Your task to perform on an android device: turn on the 24-hour format for clock Image 0: 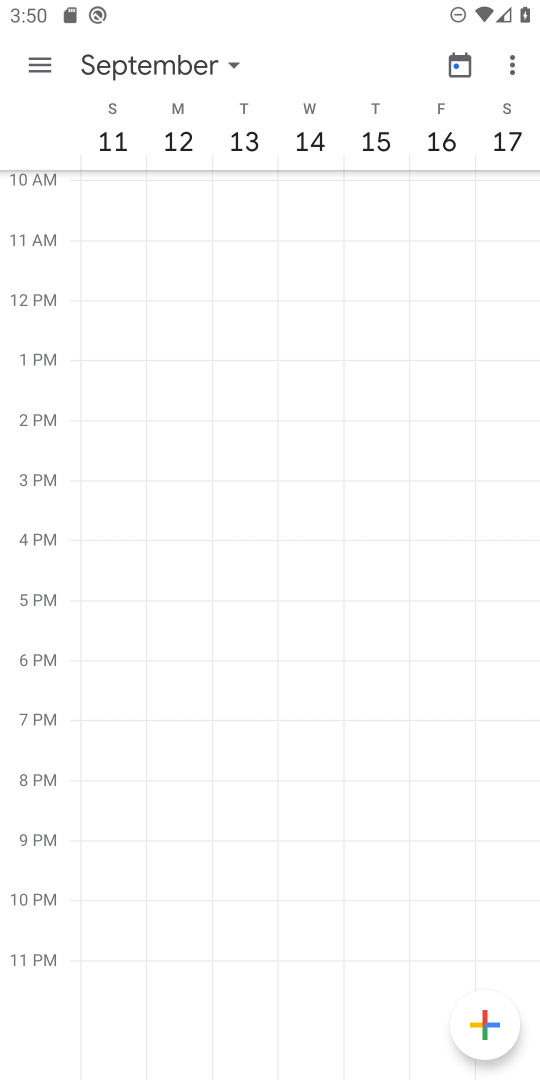
Step 0: press home button
Your task to perform on an android device: turn on the 24-hour format for clock Image 1: 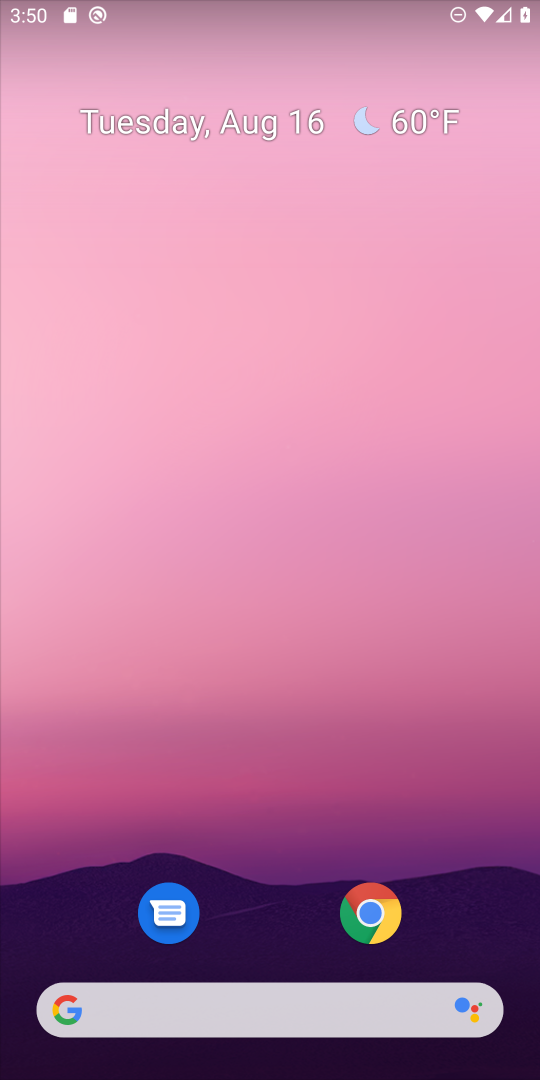
Step 1: drag from (475, 931) to (474, 180)
Your task to perform on an android device: turn on the 24-hour format for clock Image 2: 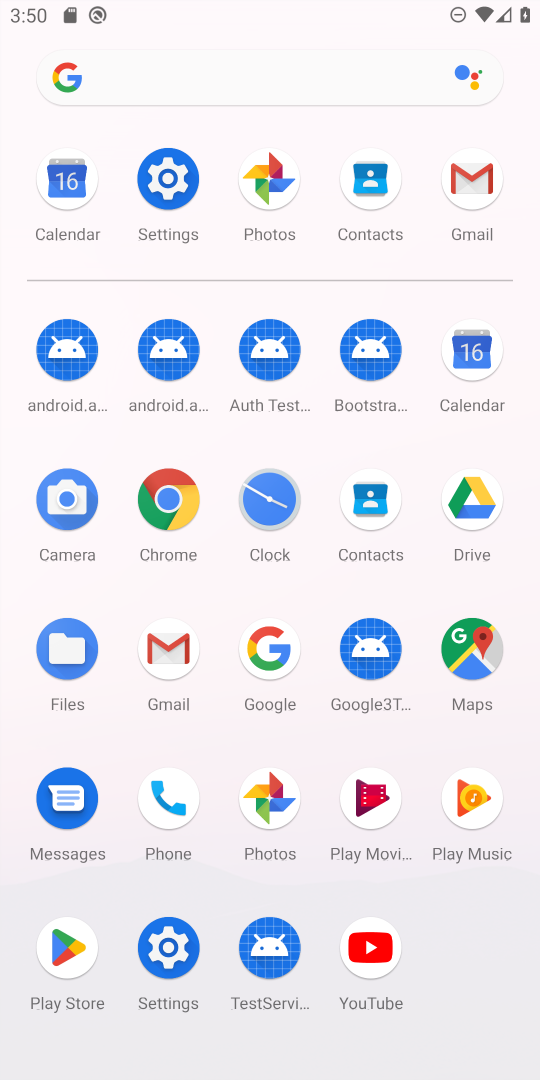
Step 2: click (265, 504)
Your task to perform on an android device: turn on the 24-hour format for clock Image 3: 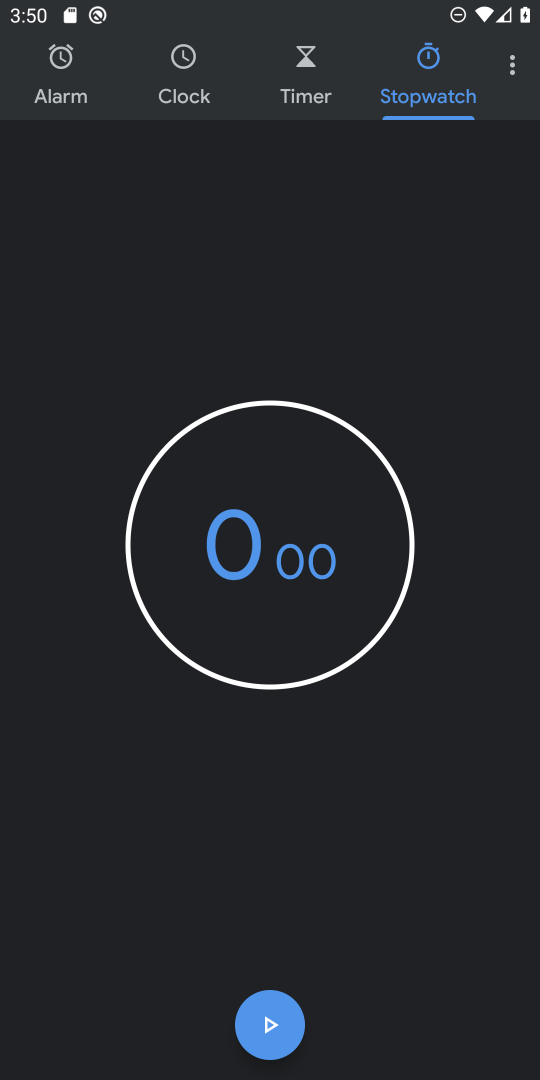
Step 3: click (506, 81)
Your task to perform on an android device: turn on the 24-hour format for clock Image 4: 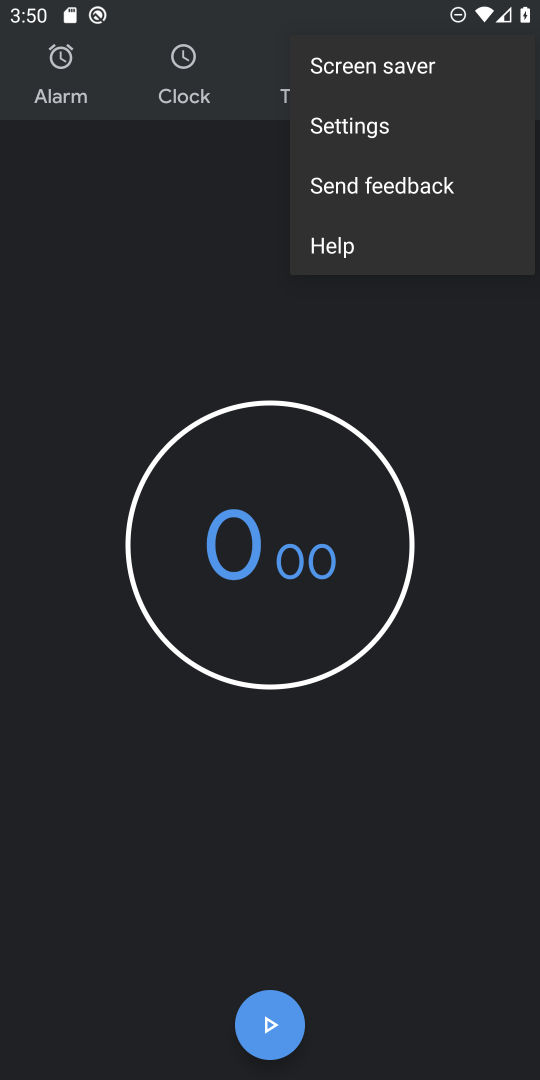
Step 4: click (378, 126)
Your task to perform on an android device: turn on the 24-hour format for clock Image 5: 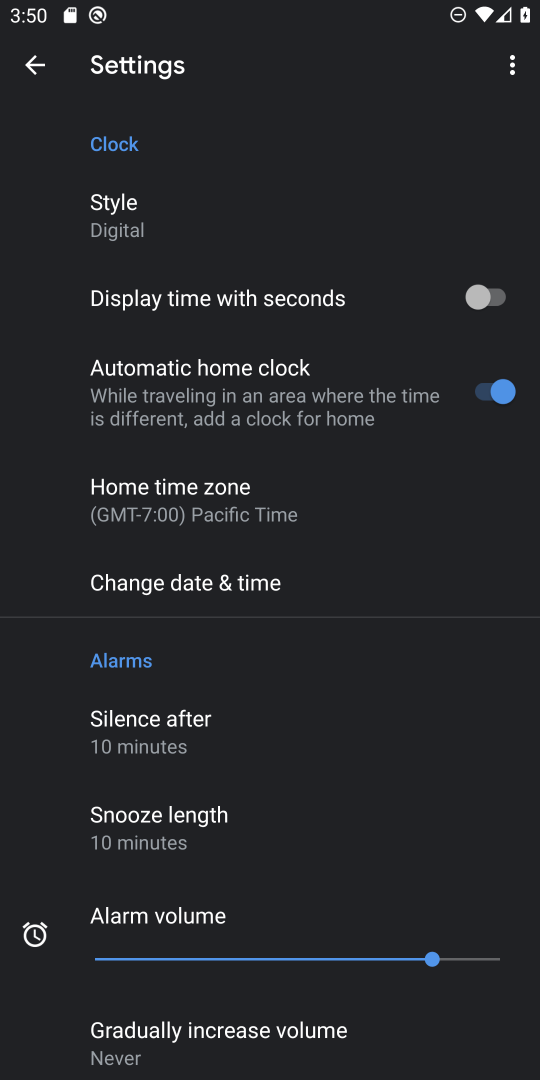
Step 5: click (263, 594)
Your task to perform on an android device: turn on the 24-hour format for clock Image 6: 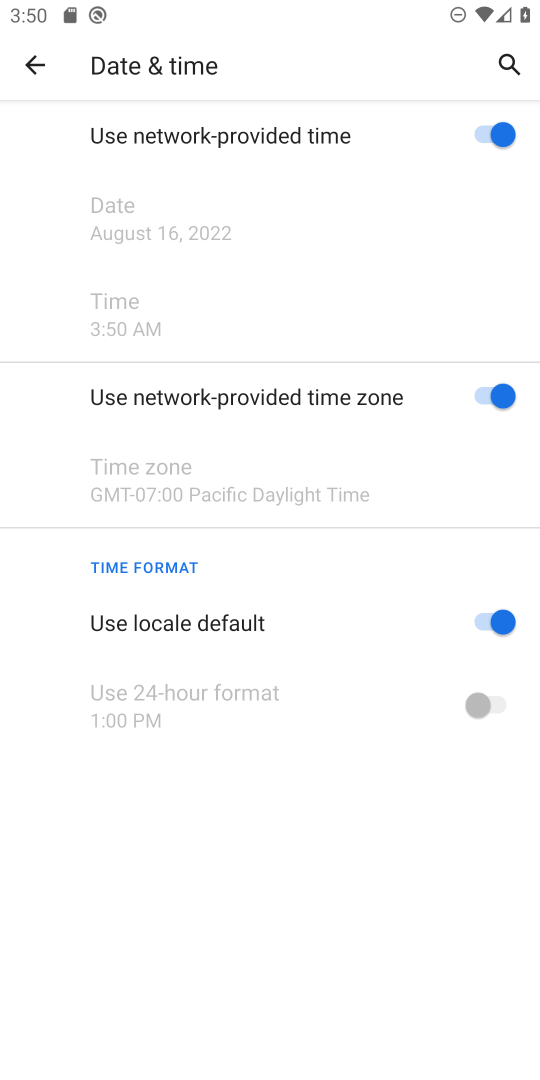
Step 6: click (476, 617)
Your task to perform on an android device: turn on the 24-hour format for clock Image 7: 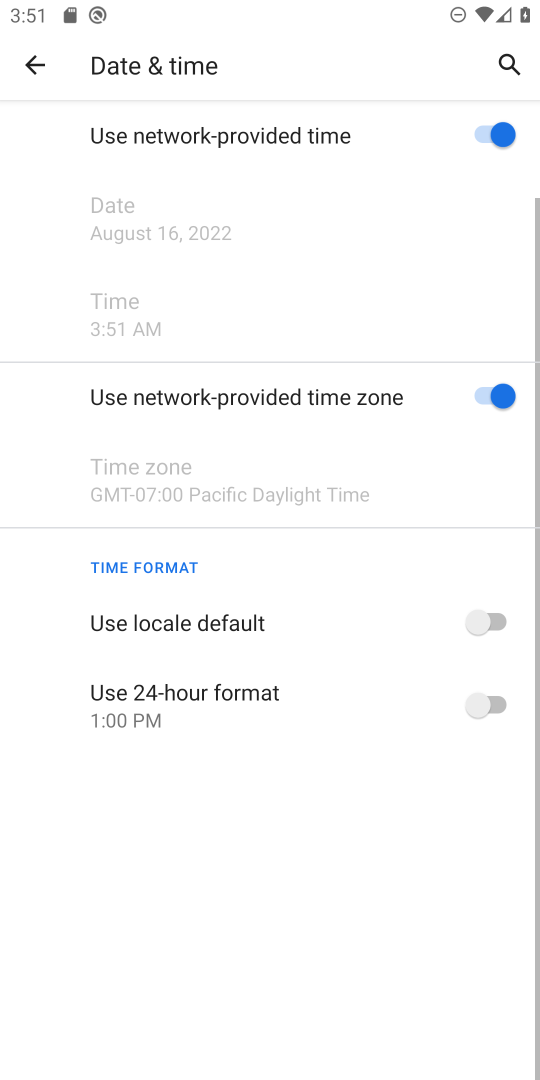
Step 7: click (497, 704)
Your task to perform on an android device: turn on the 24-hour format for clock Image 8: 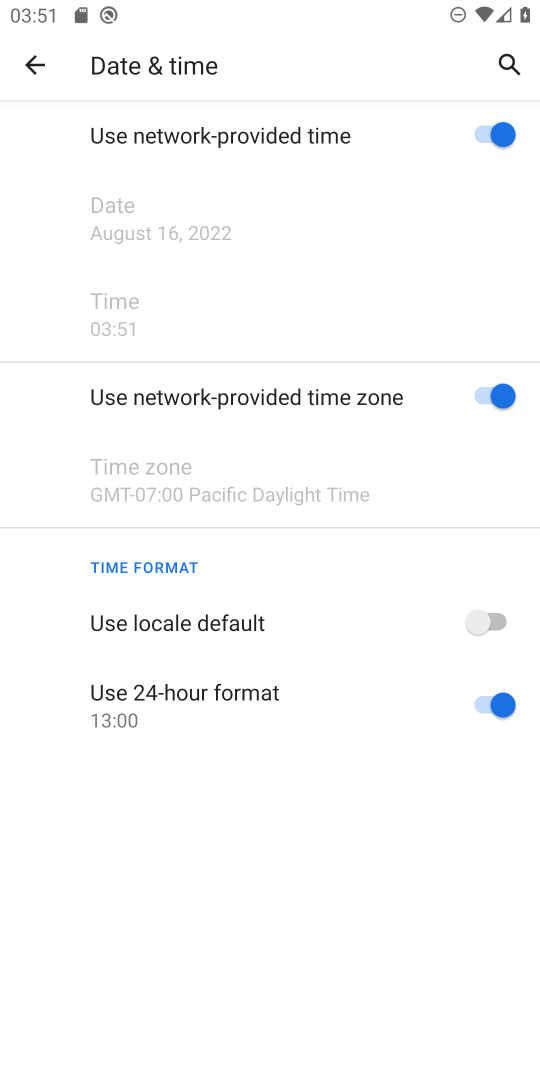
Step 8: task complete